Your task to perform on an android device: turn vacation reply on in the gmail app Image 0: 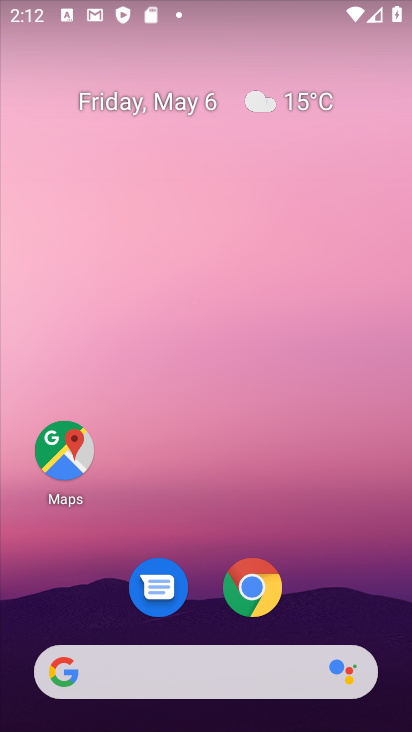
Step 0: drag from (371, 543) to (406, 102)
Your task to perform on an android device: turn vacation reply on in the gmail app Image 1: 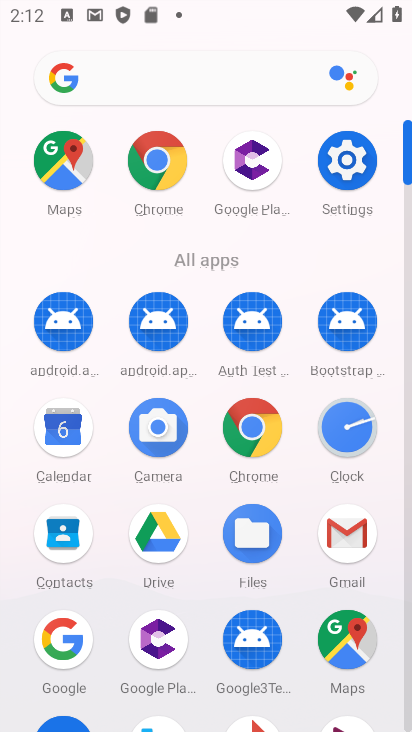
Step 1: click (335, 534)
Your task to perform on an android device: turn vacation reply on in the gmail app Image 2: 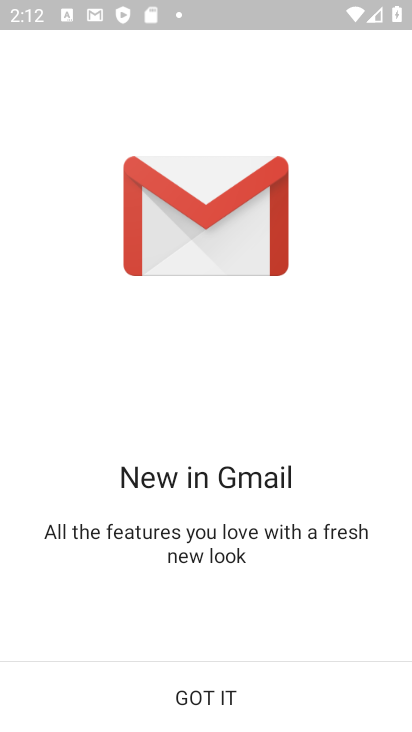
Step 2: click (222, 685)
Your task to perform on an android device: turn vacation reply on in the gmail app Image 3: 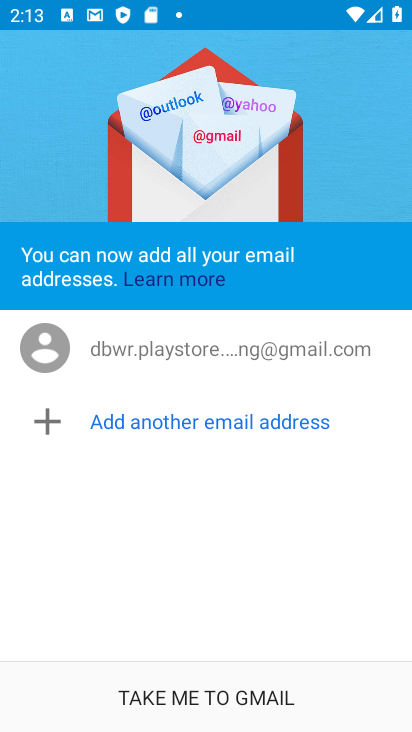
Step 3: click (217, 697)
Your task to perform on an android device: turn vacation reply on in the gmail app Image 4: 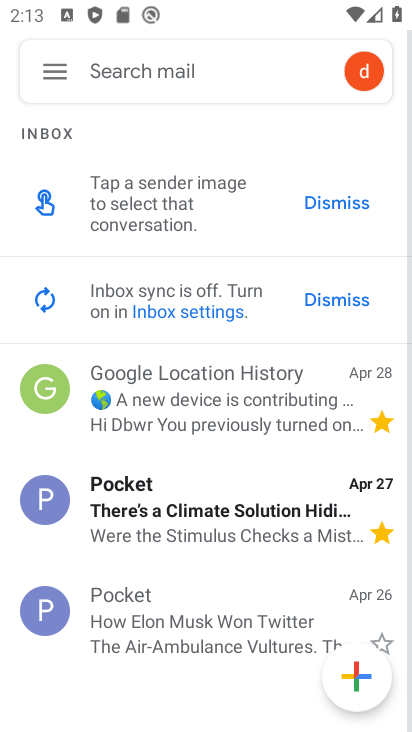
Step 4: click (40, 76)
Your task to perform on an android device: turn vacation reply on in the gmail app Image 5: 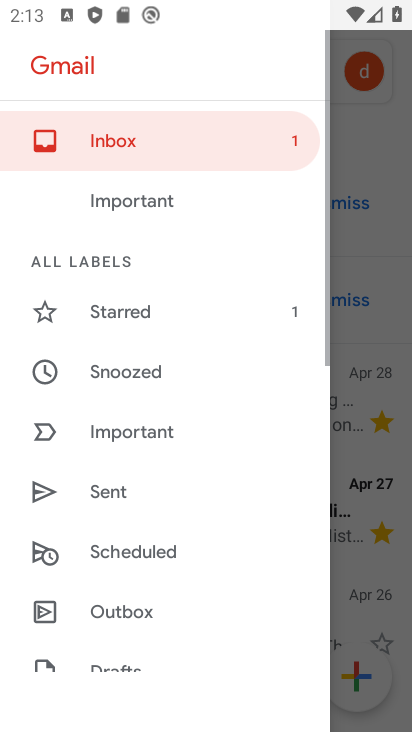
Step 5: drag from (197, 612) to (193, 221)
Your task to perform on an android device: turn vacation reply on in the gmail app Image 6: 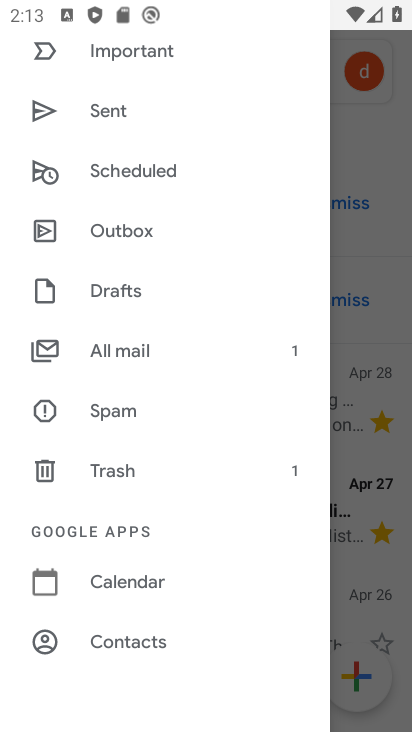
Step 6: drag from (189, 627) to (159, 164)
Your task to perform on an android device: turn vacation reply on in the gmail app Image 7: 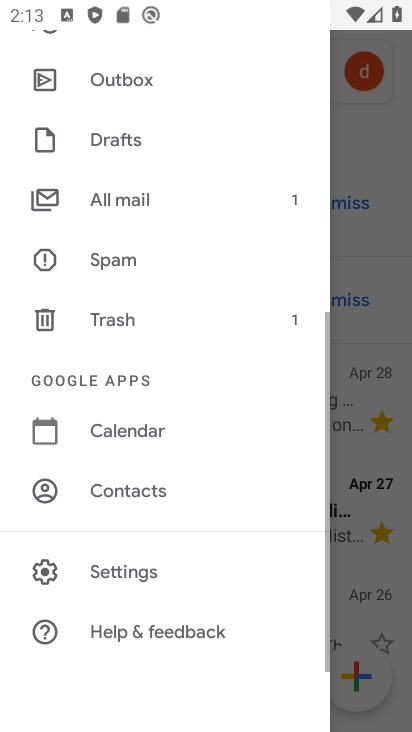
Step 7: click (126, 596)
Your task to perform on an android device: turn vacation reply on in the gmail app Image 8: 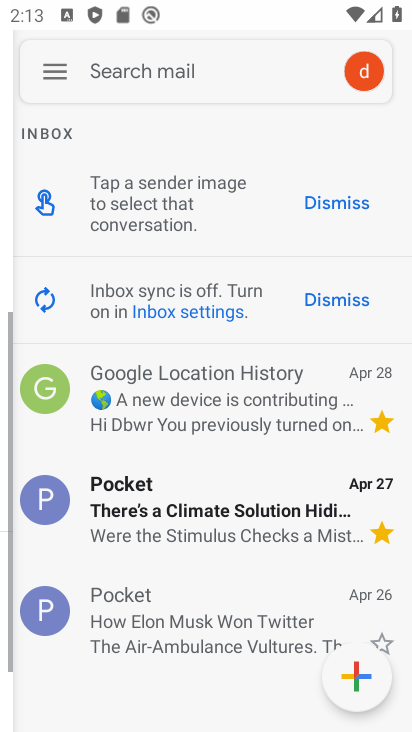
Step 8: click (122, 582)
Your task to perform on an android device: turn vacation reply on in the gmail app Image 9: 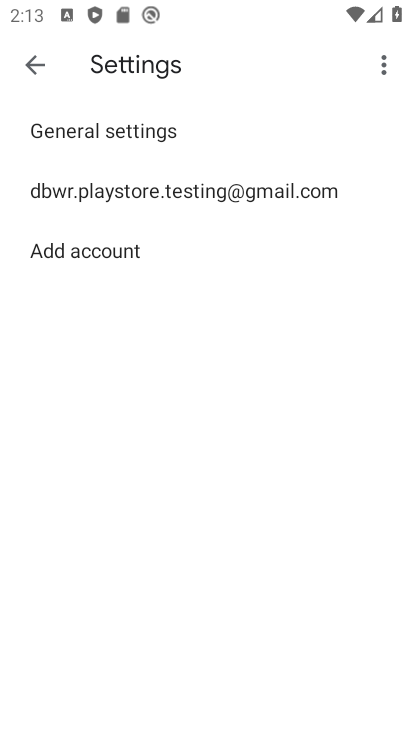
Step 9: click (86, 188)
Your task to perform on an android device: turn vacation reply on in the gmail app Image 10: 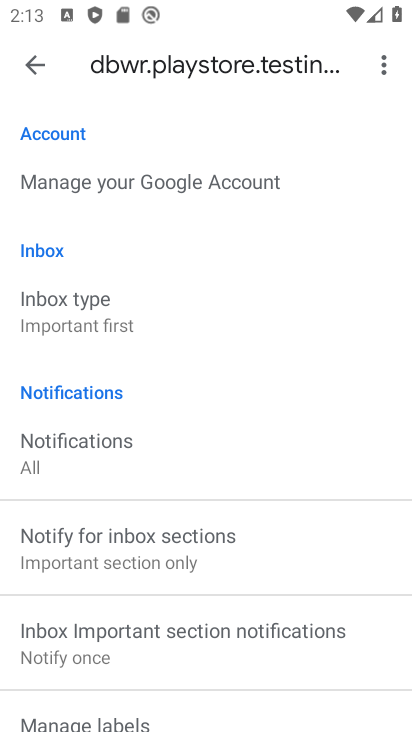
Step 10: drag from (239, 618) to (259, 271)
Your task to perform on an android device: turn vacation reply on in the gmail app Image 11: 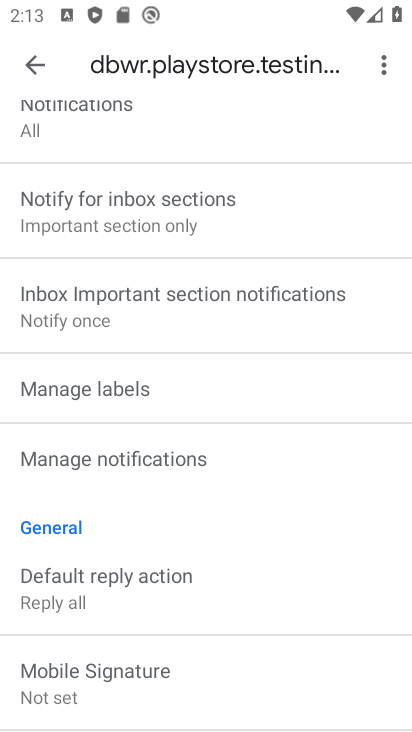
Step 11: drag from (283, 514) to (325, 219)
Your task to perform on an android device: turn vacation reply on in the gmail app Image 12: 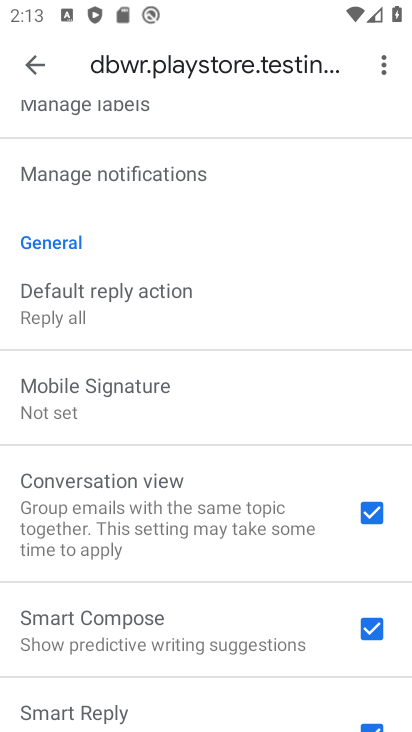
Step 12: drag from (213, 596) to (285, 209)
Your task to perform on an android device: turn vacation reply on in the gmail app Image 13: 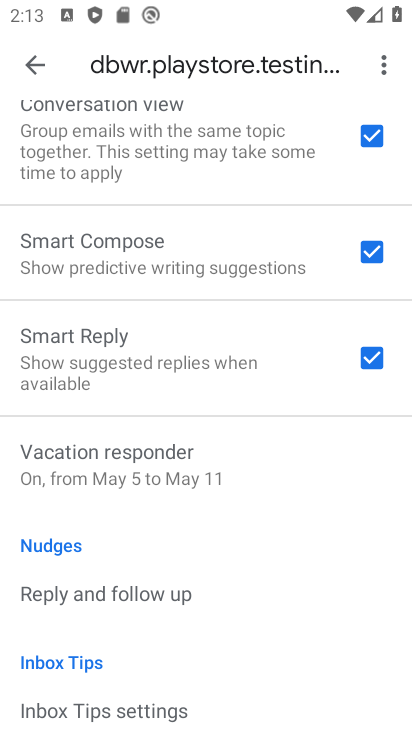
Step 13: drag from (183, 620) to (105, 196)
Your task to perform on an android device: turn vacation reply on in the gmail app Image 14: 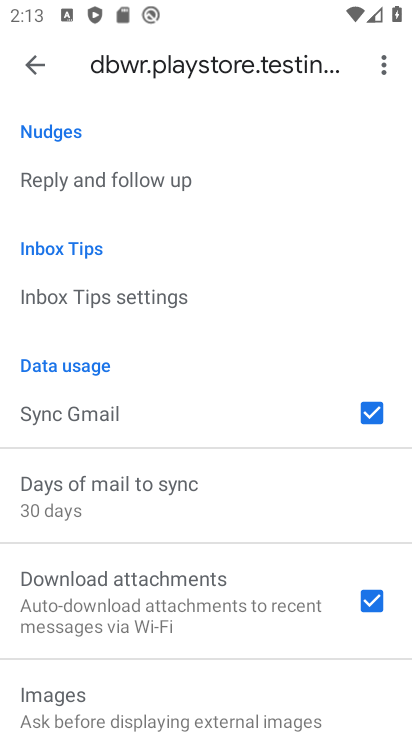
Step 14: drag from (105, 196) to (31, 688)
Your task to perform on an android device: turn vacation reply on in the gmail app Image 15: 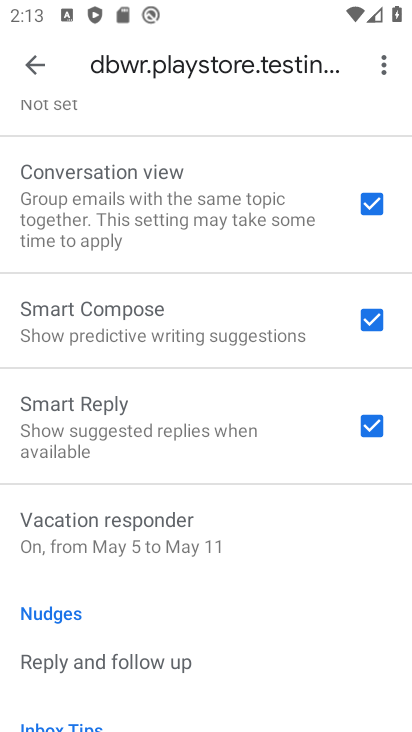
Step 15: click (111, 580)
Your task to perform on an android device: turn vacation reply on in the gmail app Image 16: 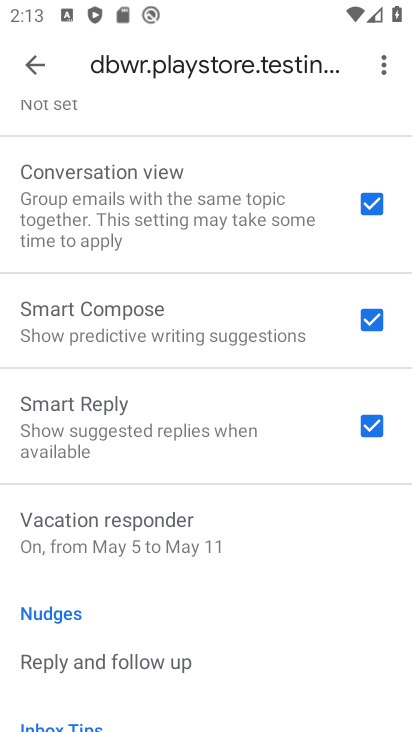
Step 16: drag from (146, 298) to (178, 726)
Your task to perform on an android device: turn vacation reply on in the gmail app Image 17: 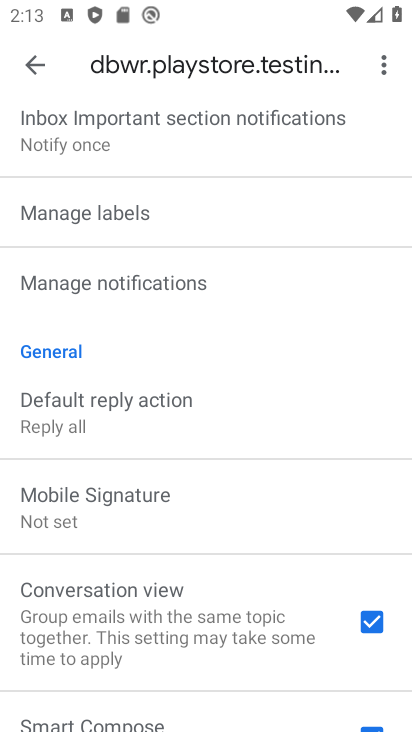
Step 17: drag from (201, 613) to (225, 241)
Your task to perform on an android device: turn vacation reply on in the gmail app Image 18: 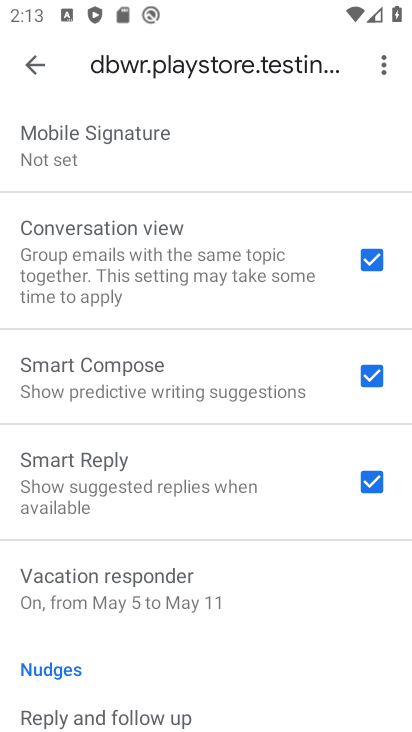
Step 18: drag from (261, 597) to (280, 296)
Your task to perform on an android device: turn vacation reply on in the gmail app Image 19: 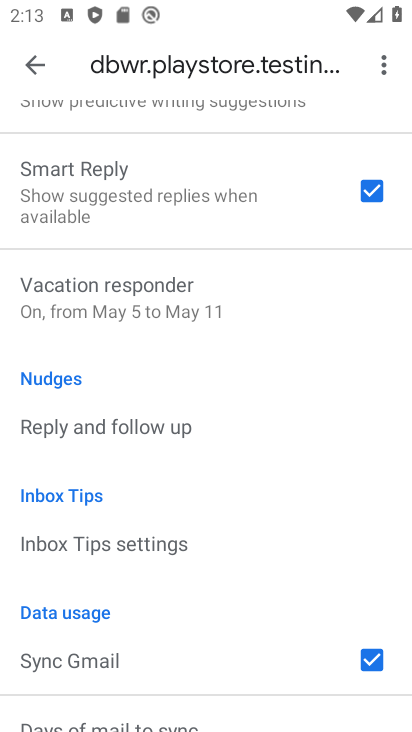
Step 19: click (206, 290)
Your task to perform on an android device: turn vacation reply on in the gmail app Image 20: 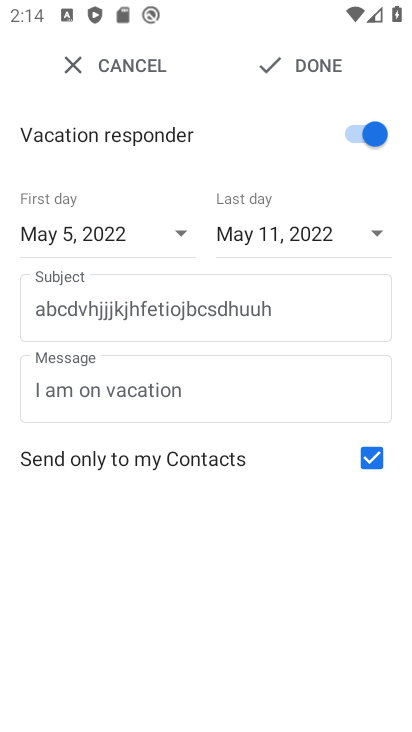
Step 20: task complete